Your task to perform on an android device: empty trash in google photos Image 0: 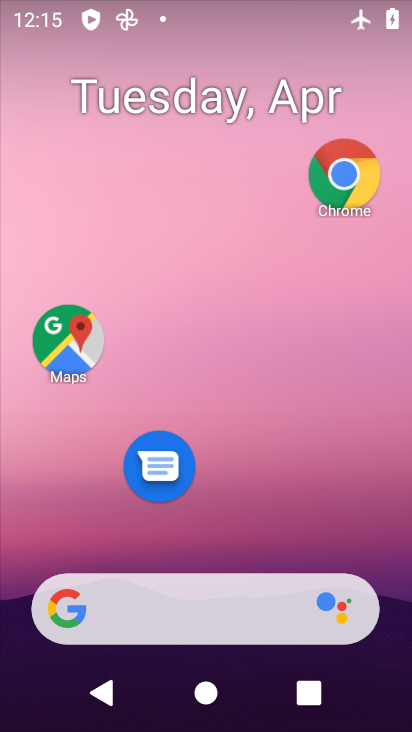
Step 0: click (300, 176)
Your task to perform on an android device: empty trash in google photos Image 1: 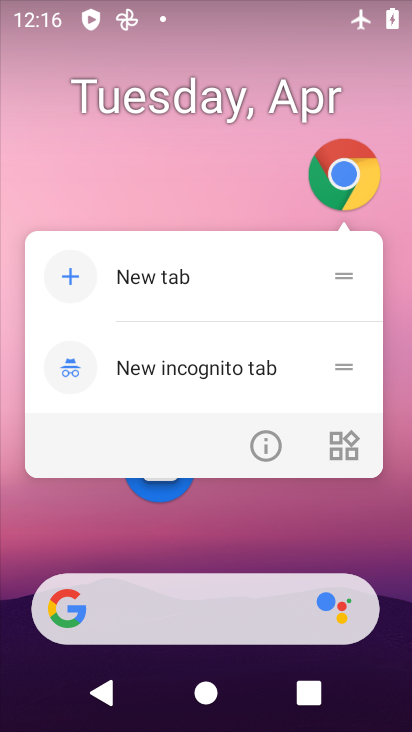
Step 1: click (237, 172)
Your task to perform on an android device: empty trash in google photos Image 2: 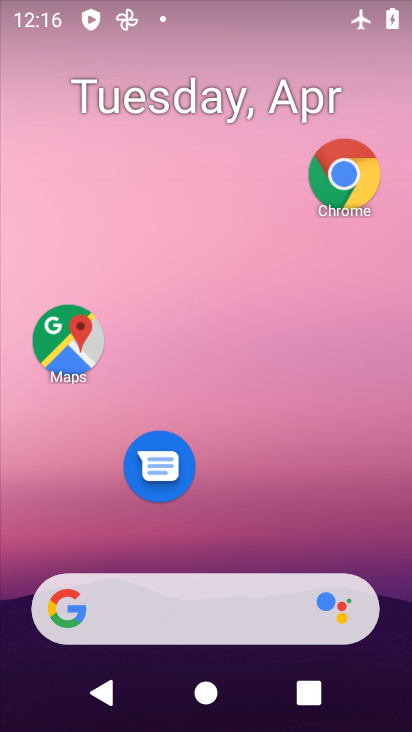
Step 2: drag from (223, 537) to (248, 25)
Your task to perform on an android device: empty trash in google photos Image 3: 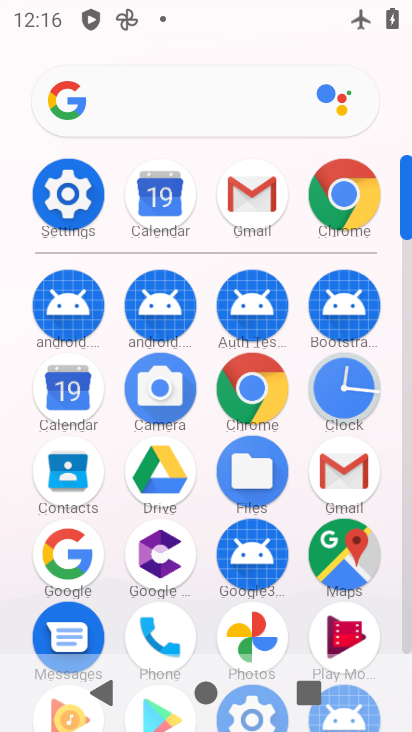
Step 3: drag from (255, 494) to (295, 238)
Your task to perform on an android device: empty trash in google photos Image 4: 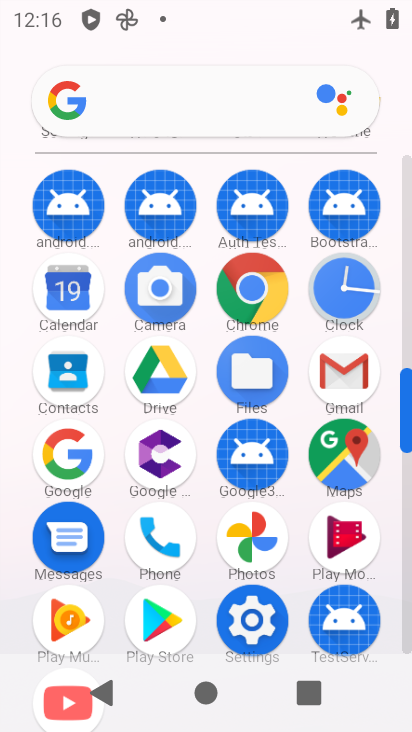
Step 4: click (276, 536)
Your task to perform on an android device: empty trash in google photos Image 5: 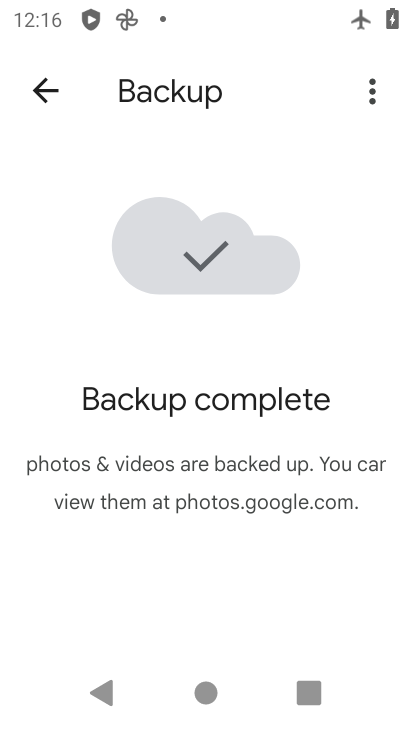
Step 5: click (60, 92)
Your task to perform on an android device: empty trash in google photos Image 6: 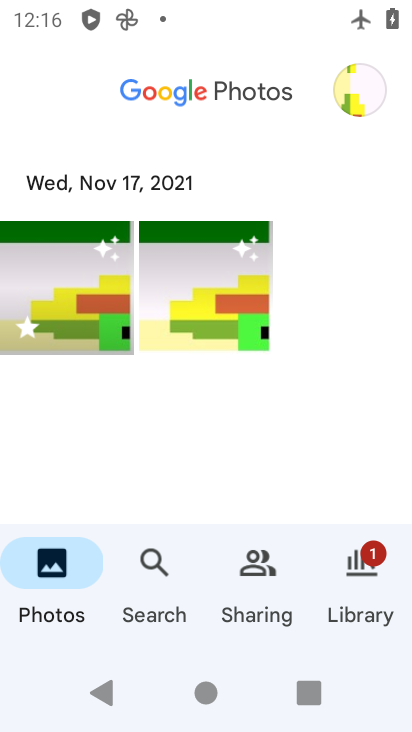
Step 6: click (368, 88)
Your task to perform on an android device: empty trash in google photos Image 7: 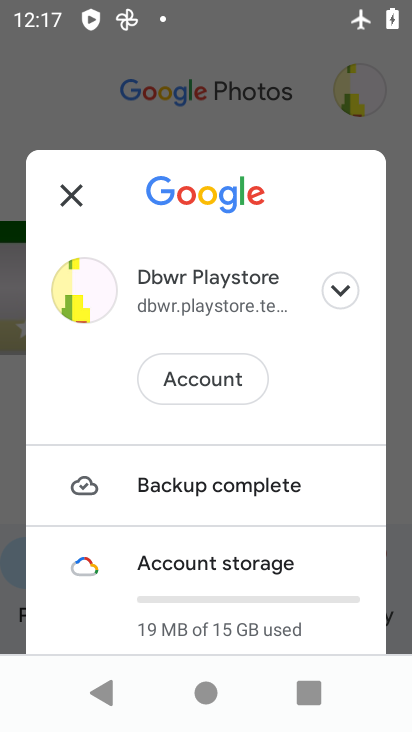
Step 7: task complete